Your task to perform on an android device: Open Yahoo.com Image 0: 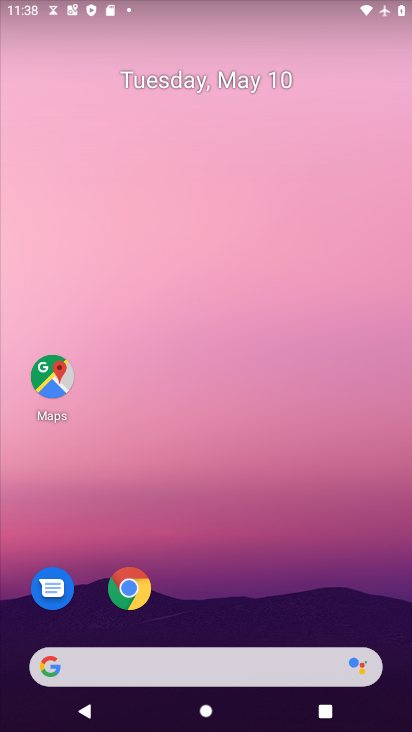
Step 0: click (407, 481)
Your task to perform on an android device: Open Yahoo.com Image 1: 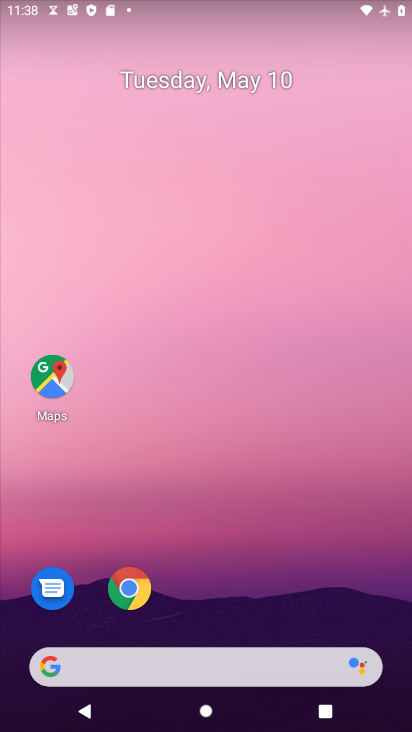
Step 1: drag from (272, 592) to (99, 253)
Your task to perform on an android device: Open Yahoo.com Image 2: 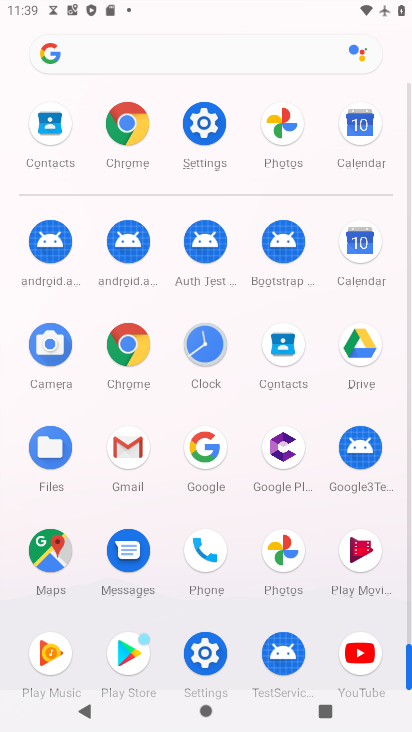
Step 2: click (134, 128)
Your task to perform on an android device: Open Yahoo.com Image 3: 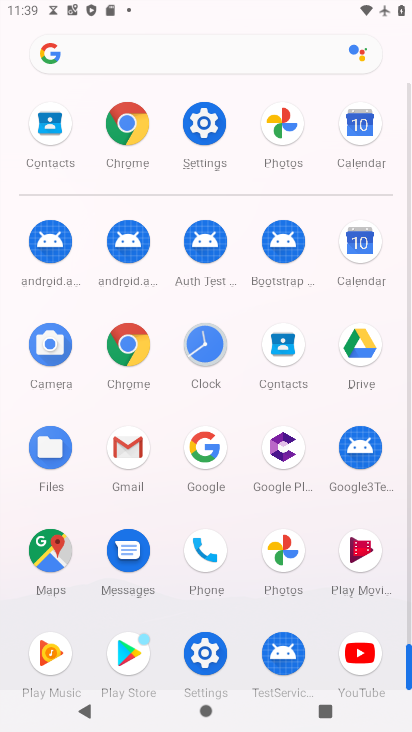
Step 3: click (132, 128)
Your task to perform on an android device: Open Yahoo.com Image 4: 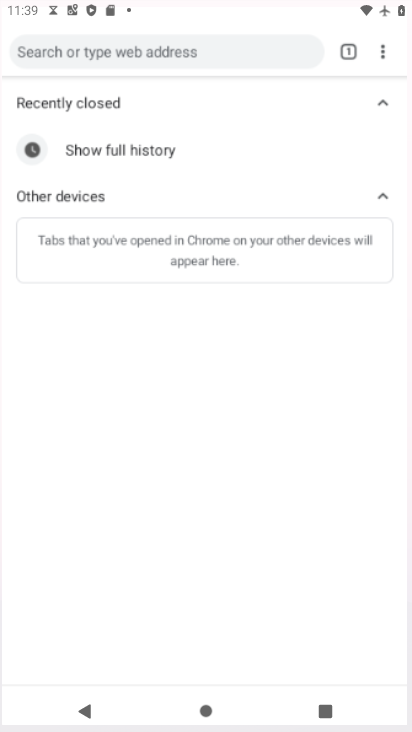
Step 4: click (132, 128)
Your task to perform on an android device: Open Yahoo.com Image 5: 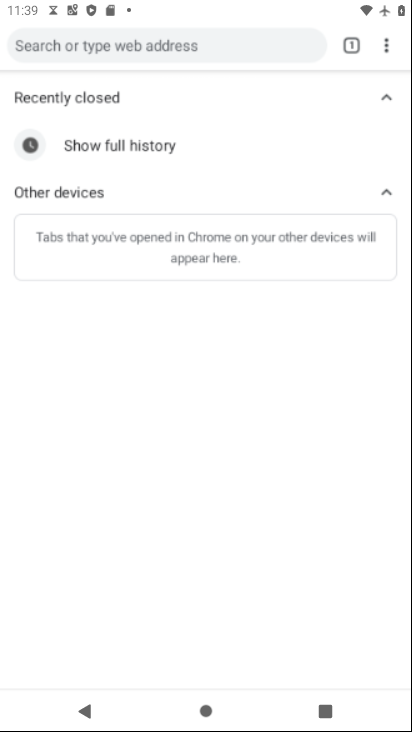
Step 5: click (132, 128)
Your task to perform on an android device: Open Yahoo.com Image 6: 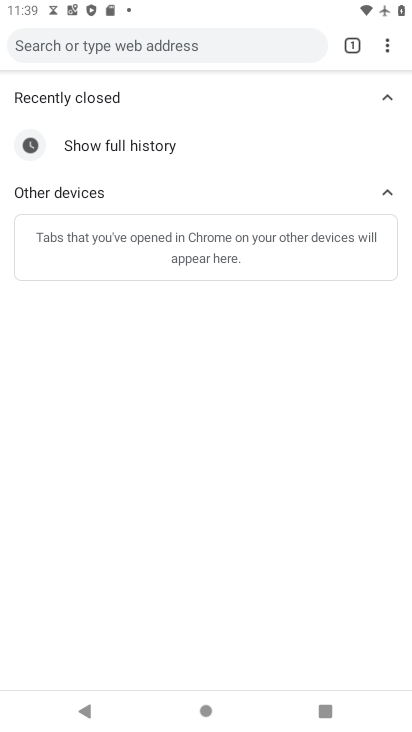
Step 6: drag from (385, 45) to (229, 81)
Your task to perform on an android device: Open Yahoo.com Image 7: 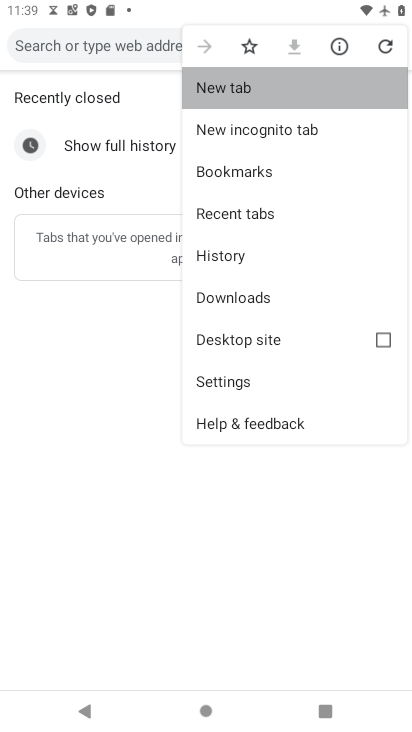
Step 7: click (231, 78)
Your task to perform on an android device: Open Yahoo.com Image 8: 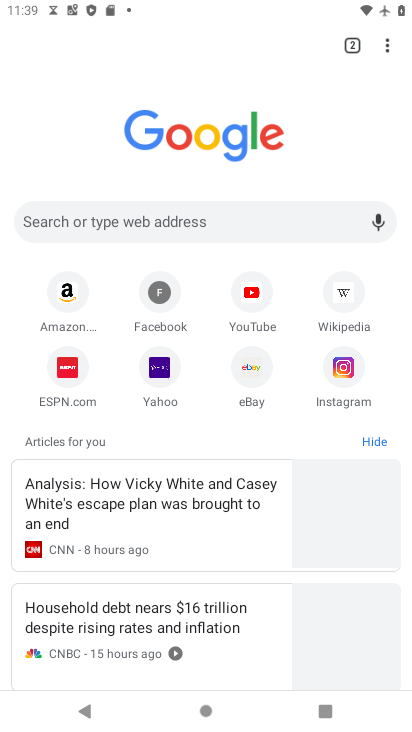
Step 8: click (233, 94)
Your task to perform on an android device: Open Yahoo.com Image 9: 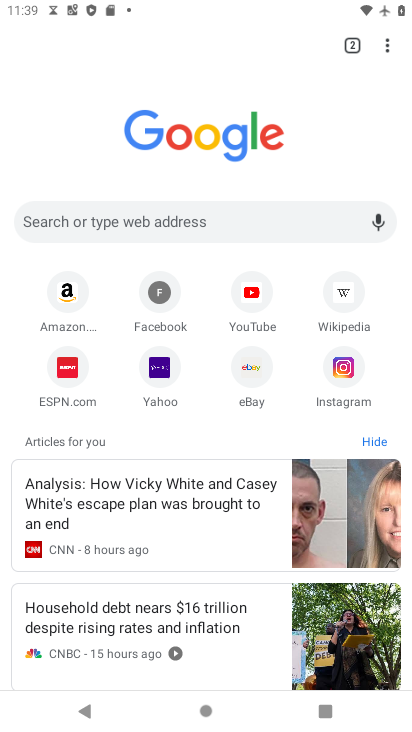
Step 9: click (155, 365)
Your task to perform on an android device: Open Yahoo.com Image 10: 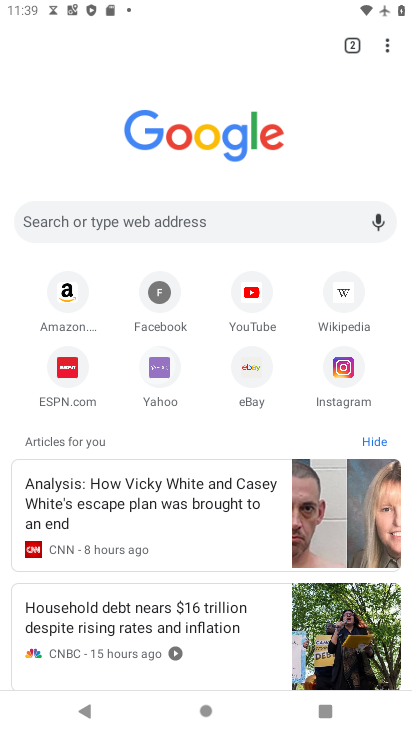
Step 10: click (156, 365)
Your task to perform on an android device: Open Yahoo.com Image 11: 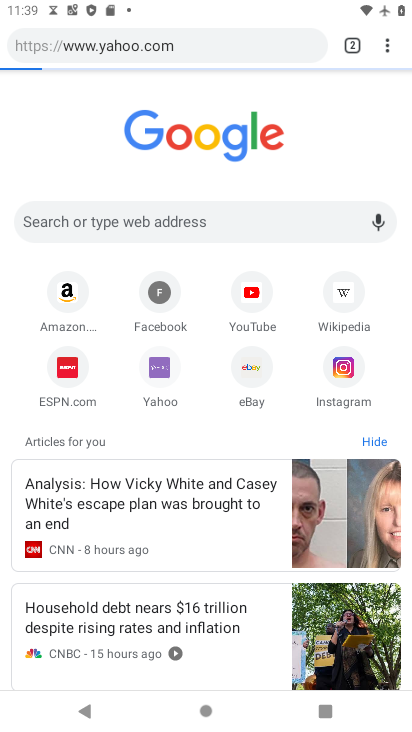
Step 11: click (156, 365)
Your task to perform on an android device: Open Yahoo.com Image 12: 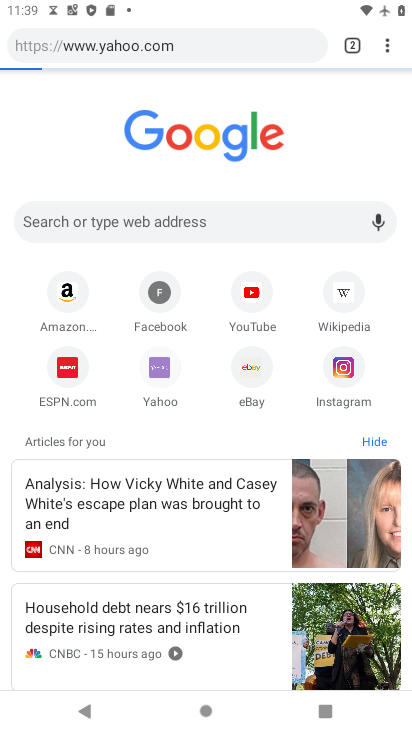
Step 12: click (156, 365)
Your task to perform on an android device: Open Yahoo.com Image 13: 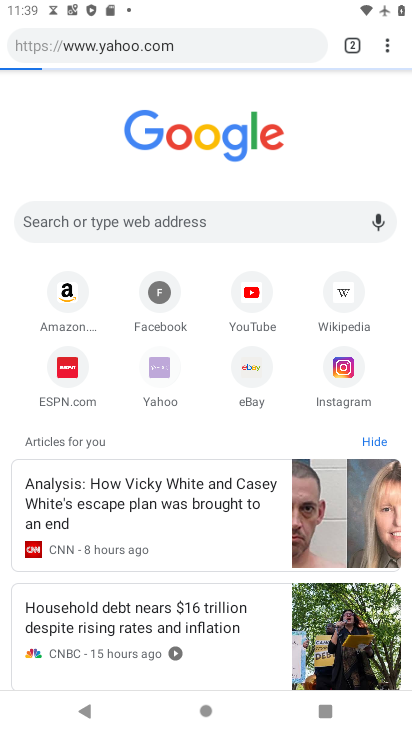
Step 13: click (156, 365)
Your task to perform on an android device: Open Yahoo.com Image 14: 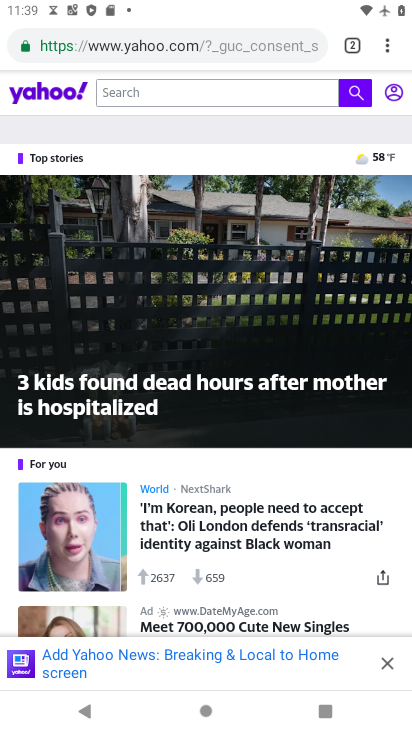
Step 14: task complete